Your task to perform on an android device: Go to wifi settings Image 0: 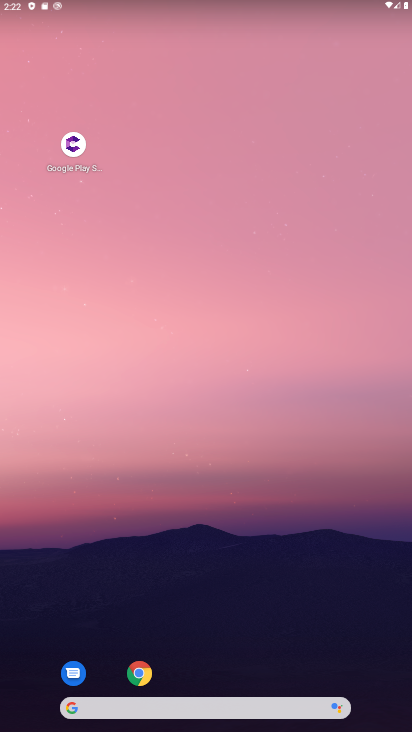
Step 0: drag from (193, 710) to (257, 98)
Your task to perform on an android device: Go to wifi settings Image 1: 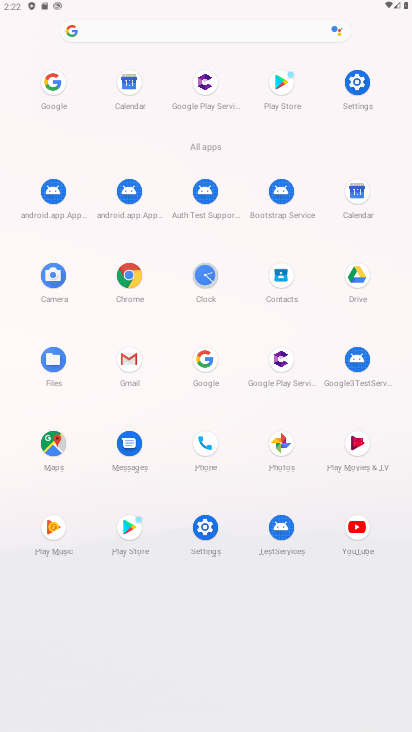
Step 1: click (357, 82)
Your task to perform on an android device: Go to wifi settings Image 2: 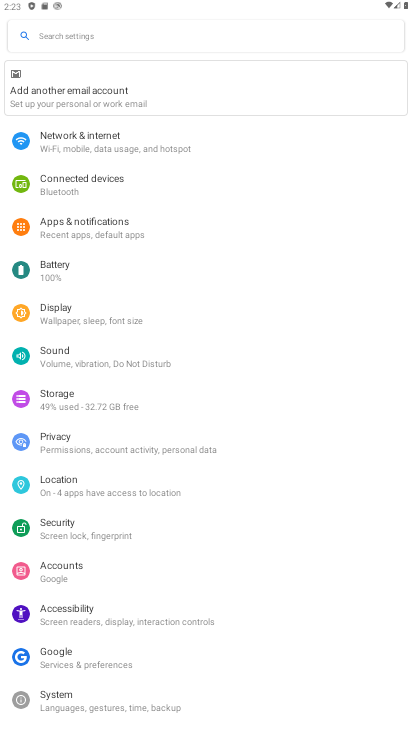
Step 2: click (140, 148)
Your task to perform on an android device: Go to wifi settings Image 3: 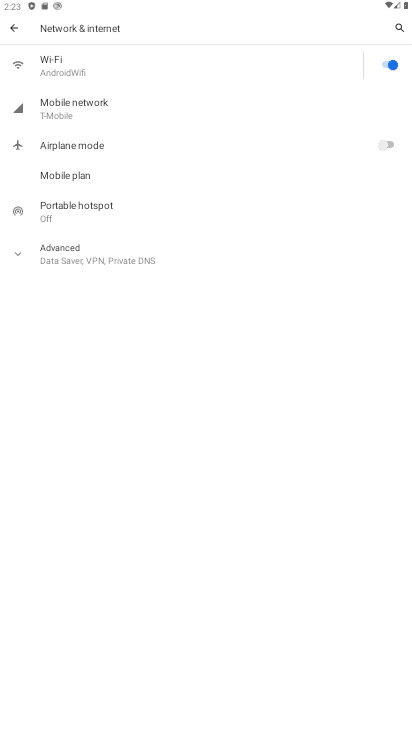
Step 3: click (74, 73)
Your task to perform on an android device: Go to wifi settings Image 4: 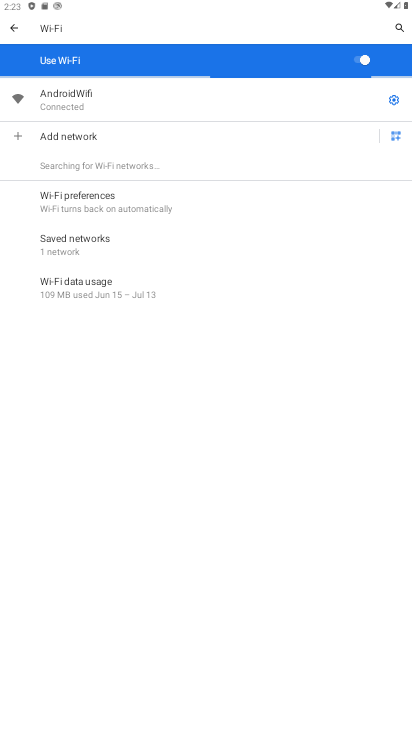
Step 4: click (394, 96)
Your task to perform on an android device: Go to wifi settings Image 5: 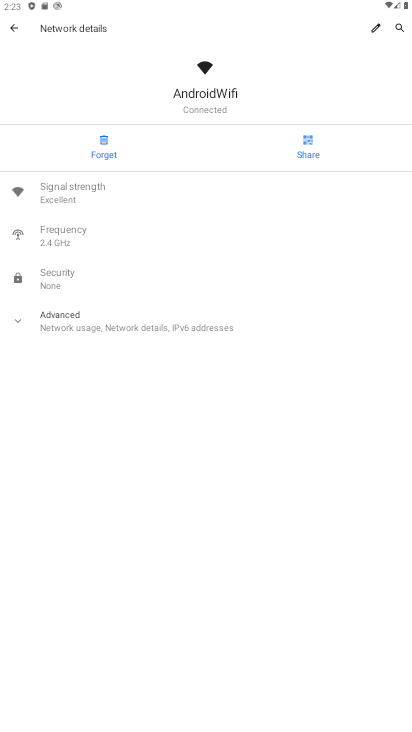
Step 5: task complete